Your task to perform on an android device: create a new album in the google photos Image 0: 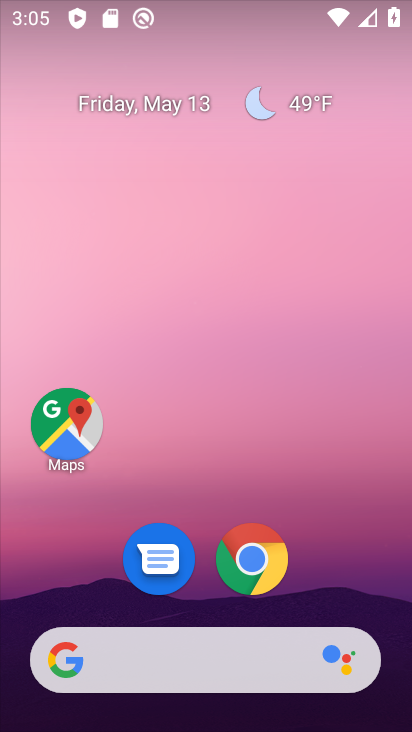
Step 0: drag from (406, 636) to (287, 58)
Your task to perform on an android device: create a new album in the google photos Image 1: 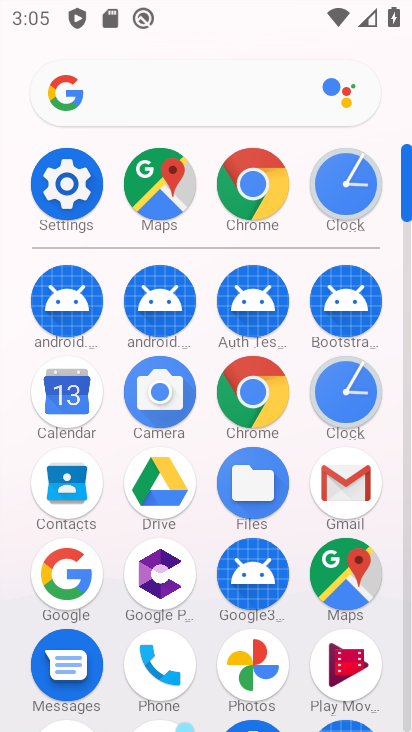
Step 1: click (407, 699)
Your task to perform on an android device: create a new album in the google photos Image 2: 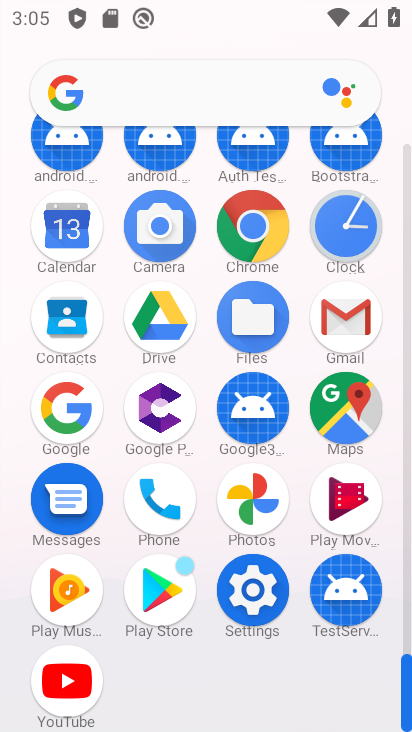
Step 2: click (251, 496)
Your task to perform on an android device: create a new album in the google photos Image 3: 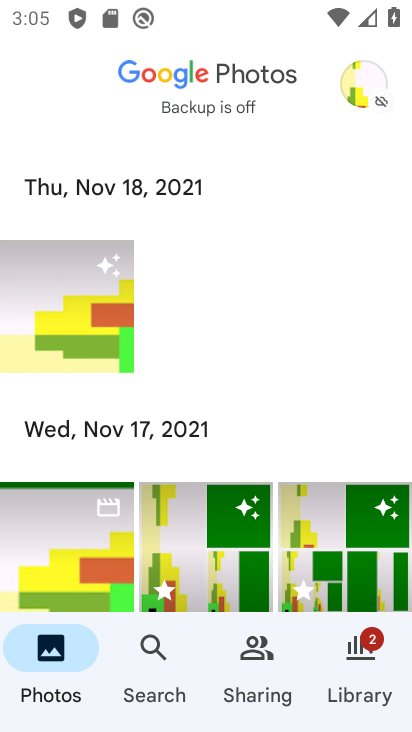
Step 3: click (363, 652)
Your task to perform on an android device: create a new album in the google photos Image 4: 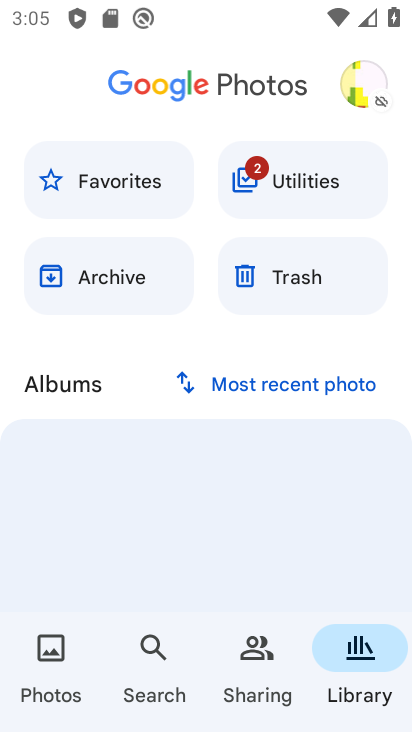
Step 4: drag from (126, 511) to (183, 156)
Your task to perform on an android device: create a new album in the google photos Image 5: 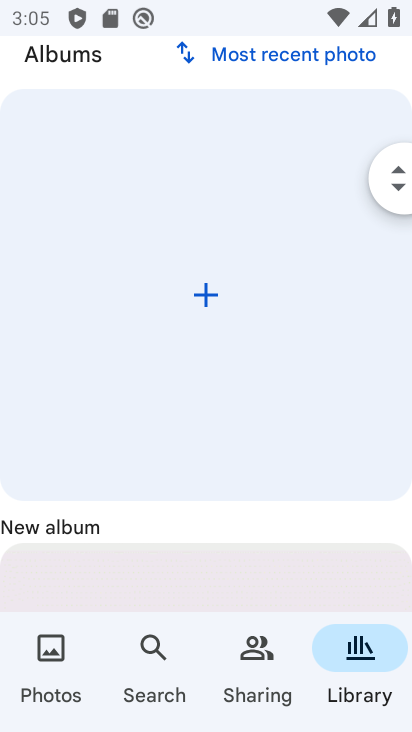
Step 5: click (200, 295)
Your task to perform on an android device: create a new album in the google photos Image 6: 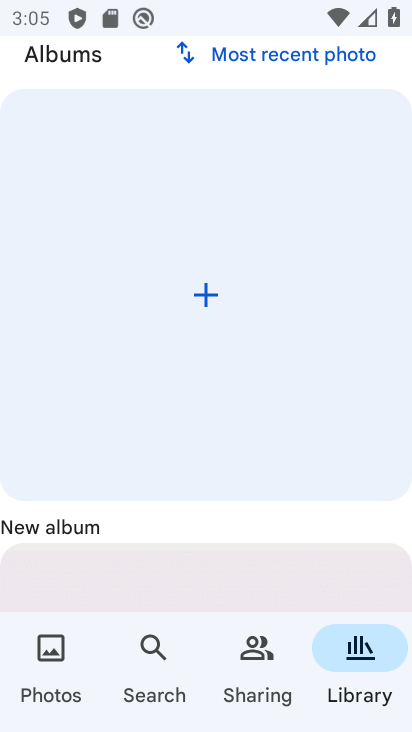
Step 6: click (206, 292)
Your task to perform on an android device: create a new album in the google photos Image 7: 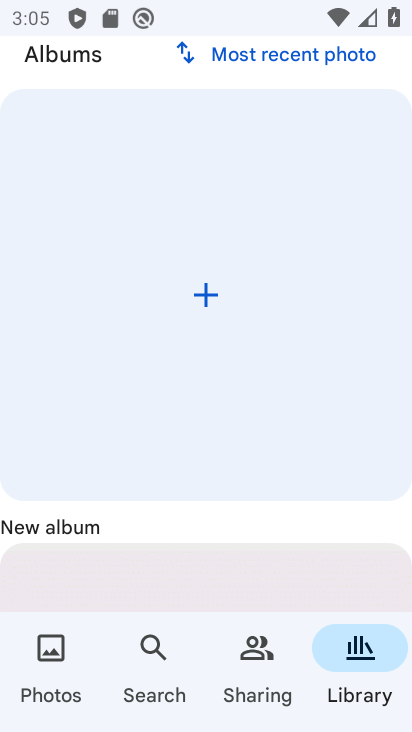
Step 7: click (206, 292)
Your task to perform on an android device: create a new album in the google photos Image 8: 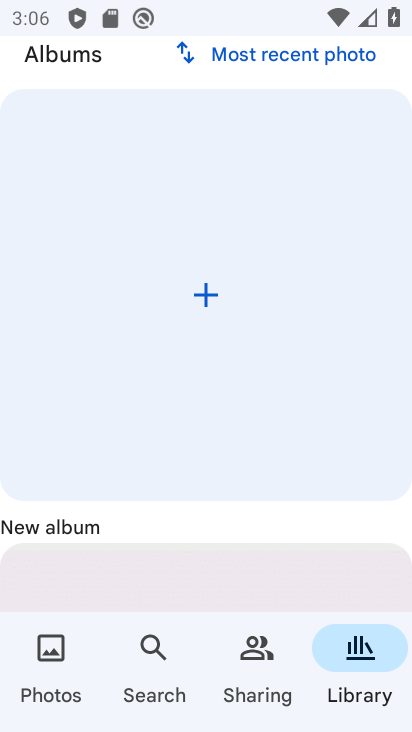
Step 8: click (172, 551)
Your task to perform on an android device: create a new album in the google photos Image 9: 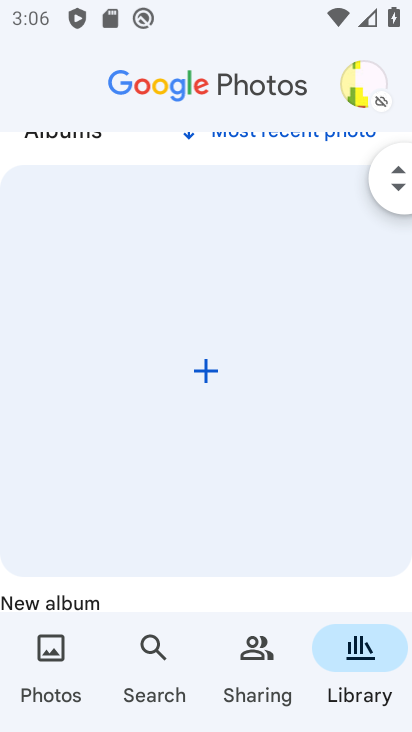
Step 9: click (207, 372)
Your task to perform on an android device: create a new album in the google photos Image 10: 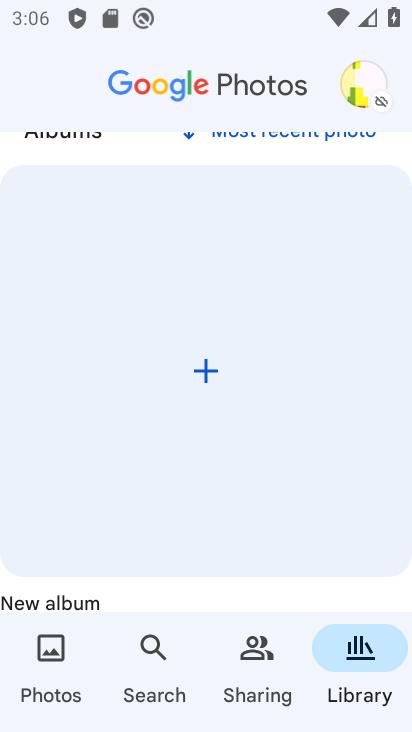
Step 10: drag from (201, 312) to (181, 622)
Your task to perform on an android device: create a new album in the google photos Image 11: 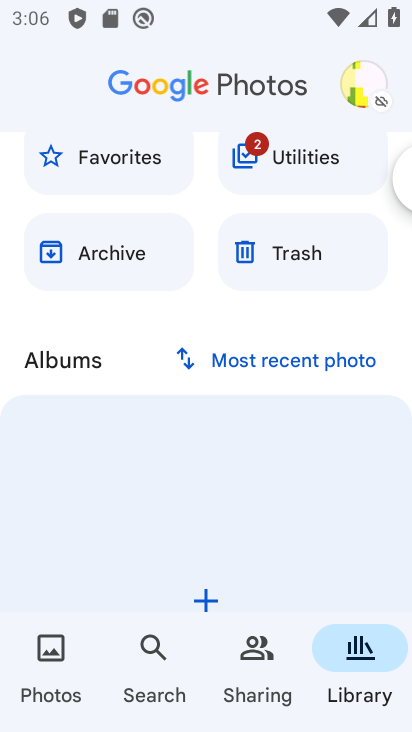
Step 11: click (201, 602)
Your task to perform on an android device: create a new album in the google photos Image 12: 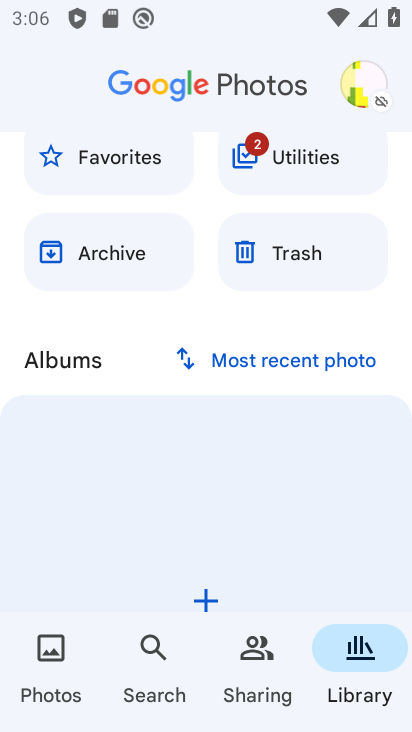
Step 12: task complete